Your task to perform on an android device: Show the shopping cart on ebay.com. Image 0: 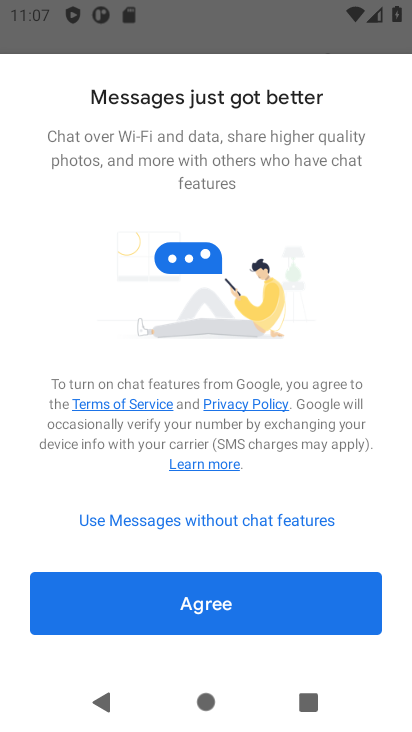
Step 0: press home button
Your task to perform on an android device: Show the shopping cart on ebay.com. Image 1: 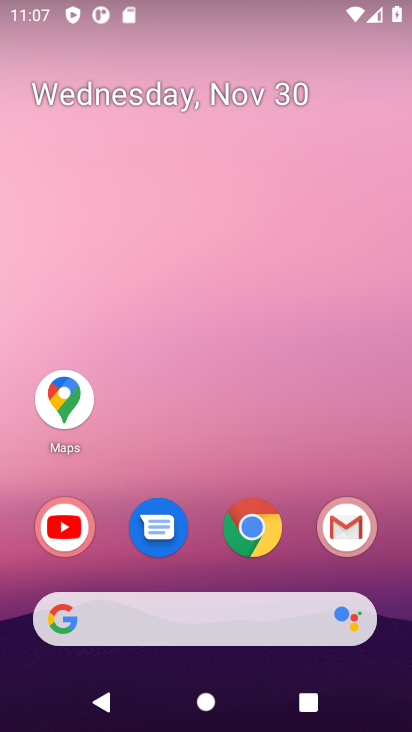
Step 1: click (245, 534)
Your task to perform on an android device: Show the shopping cart on ebay.com. Image 2: 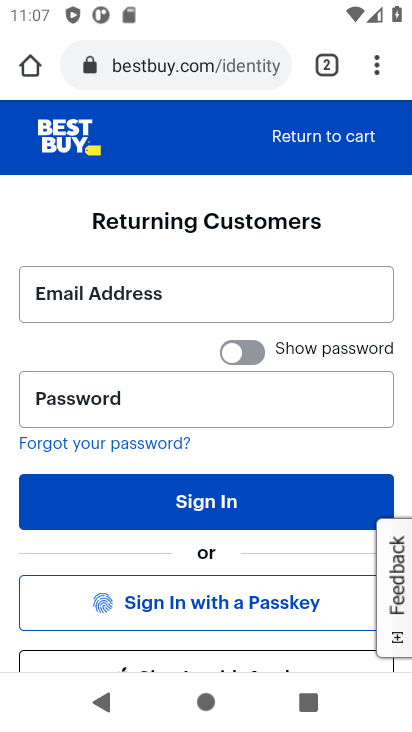
Step 2: click (178, 69)
Your task to perform on an android device: Show the shopping cart on ebay.com. Image 3: 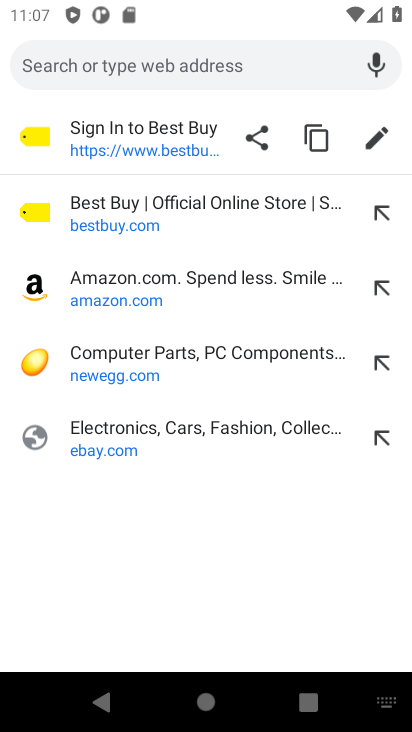
Step 3: click (86, 448)
Your task to perform on an android device: Show the shopping cart on ebay.com. Image 4: 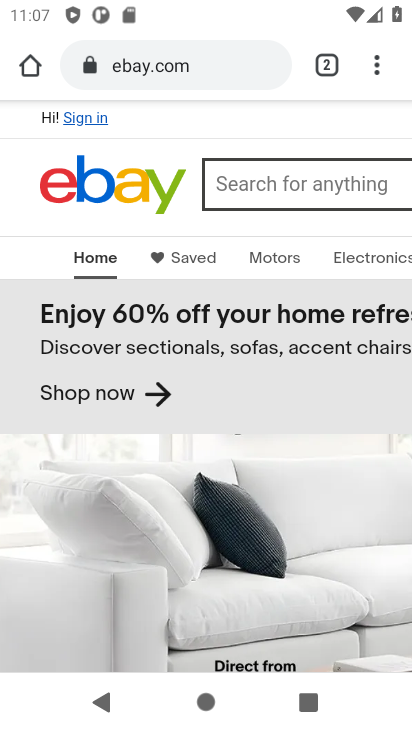
Step 4: drag from (289, 132) to (0, 107)
Your task to perform on an android device: Show the shopping cart on ebay.com. Image 5: 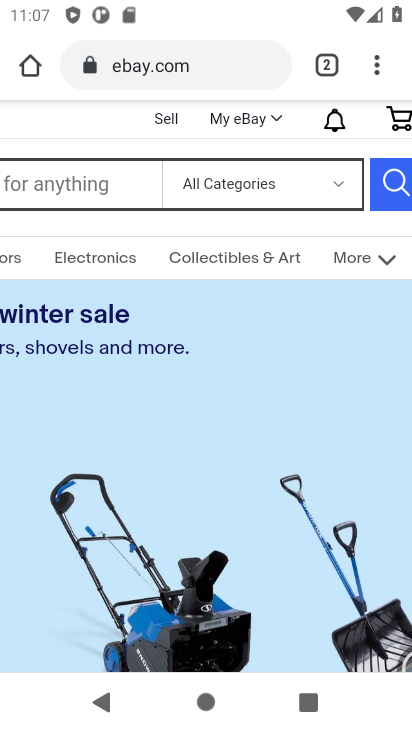
Step 5: click (403, 116)
Your task to perform on an android device: Show the shopping cart on ebay.com. Image 6: 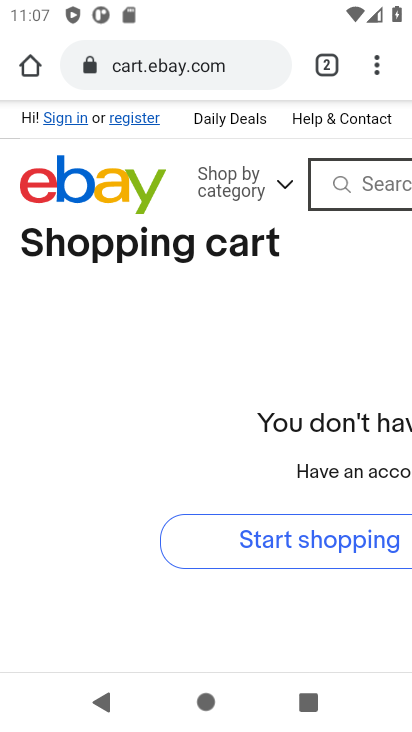
Step 6: task complete